Your task to perform on an android device: What's on my calendar today? Image 0: 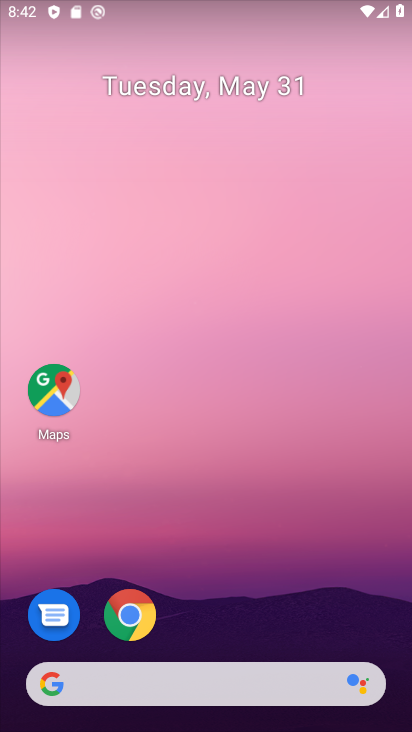
Step 0: drag from (303, 632) to (286, 122)
Your task to perform on an android device: What's on my calendar today? Image 1: 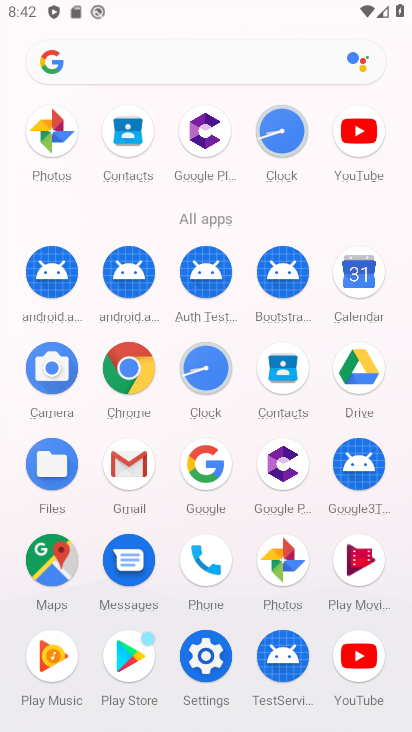
Step 1: click (348, 283)
Your task to perform on an android device: What's on my calendar today? Image 2: 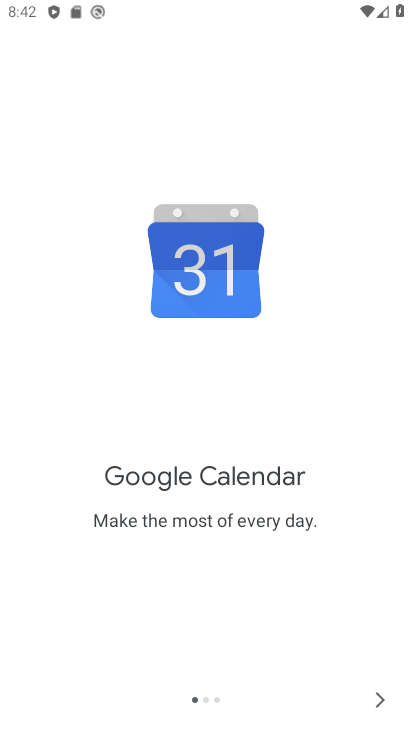
Step 2: click (376, 695)
Your task to perform on an android device: What's on my calendar today? Image 3: 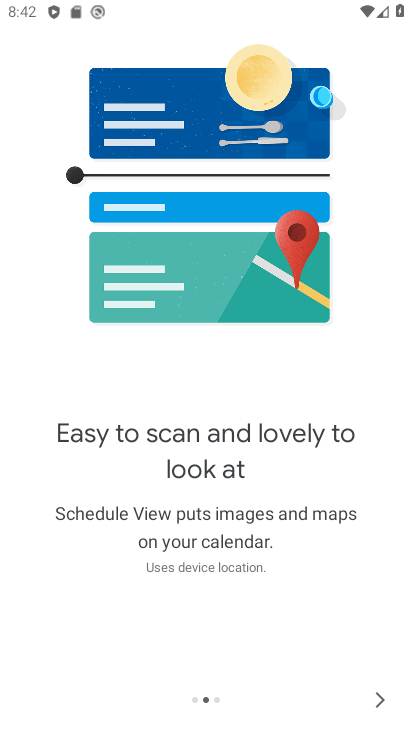
Step 3: click (377, 694)
Your task to perform on an android device: What's on my calendar today? Image 4: 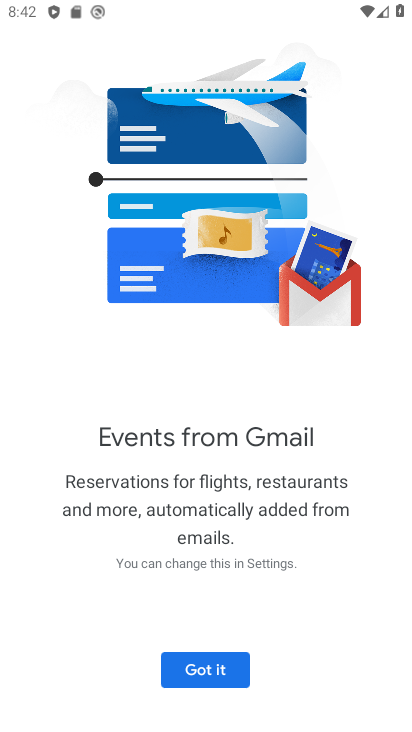
Step 4: click (221, 672)
Your task to perform on an android device: What's on my calendar today? Image 5: 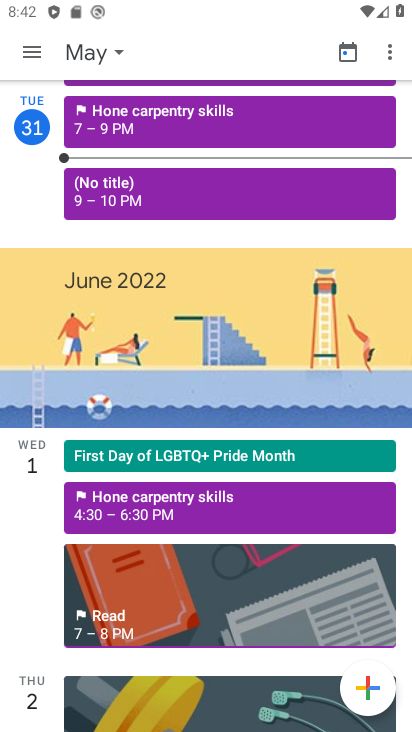
Step 5: task complete